Your task to perform on an android device: Search for vegetarian restaurants on Maps Image 0: 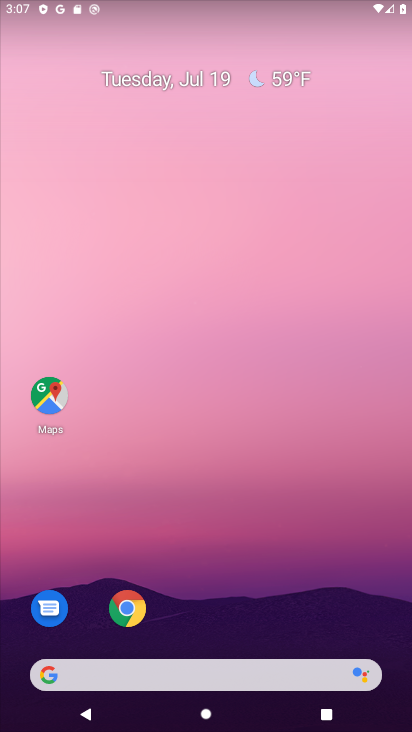
Step 0: click (51, 391)
Your task to perform on an android device: Search for vegetarian restaurants on Maps Image 1: 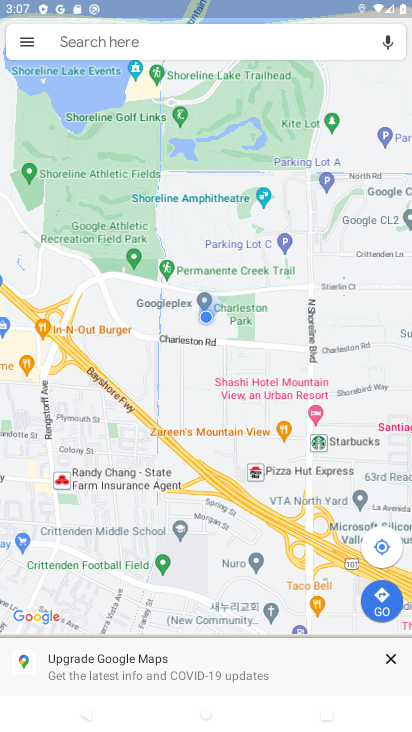
Step 1: click (167, 31)
Your task to perform on an android device: Search for vegetarian restaurants on Maps Image 2: 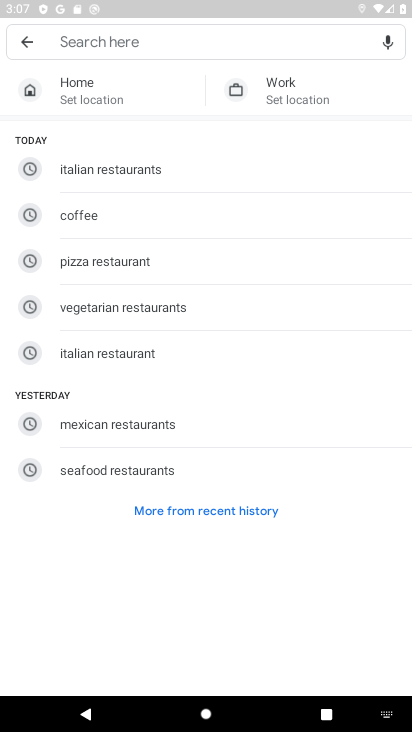
Step 2: click (161, 310)
Your task to perform on an android device: Search for vegetarian restaurants on Maps Image 3: 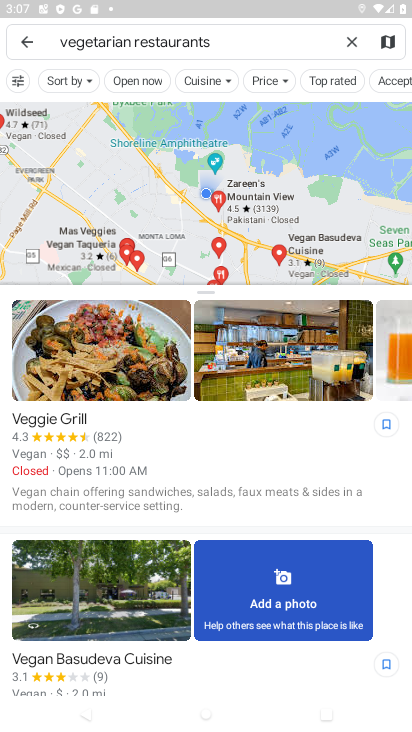
Step 3: task complete